Your task to perform on an android device: turn on priority inbox in the gmail app Image 0: 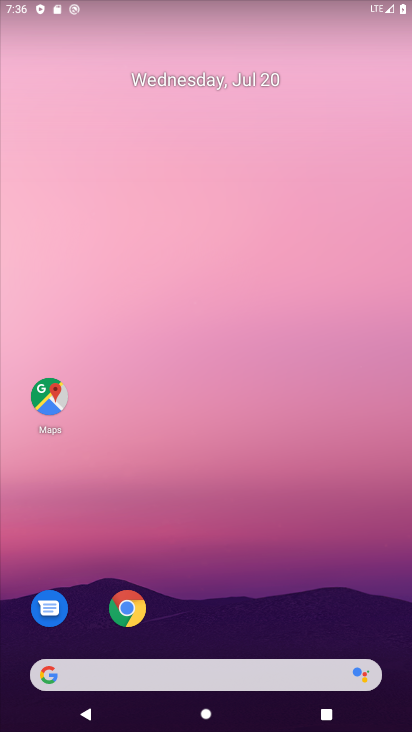
Step 0: drag from (344, 612) to (201, 104)
Your task to perform on an android device: turn on priority inbox in the gmail app Image 1: 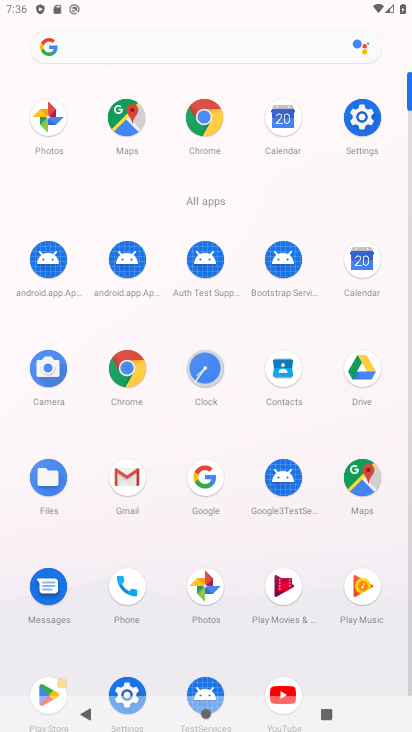
Step 1: click (135, 475)
Your task to perform on an android device: turn on priority inbox in the gmail app Image 2: 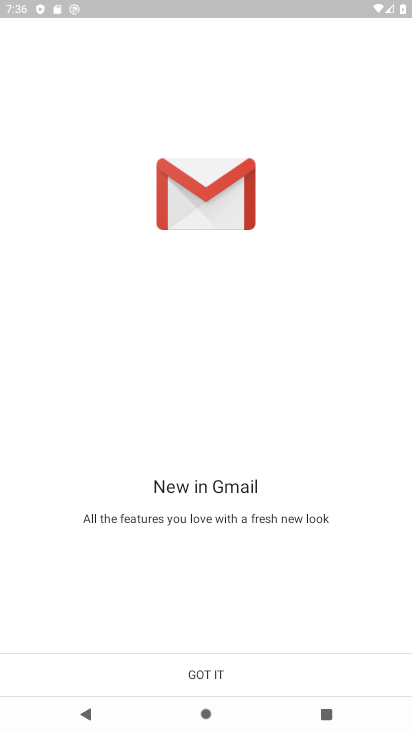
Step 2: click (237, 695)
Your task to perform on an android device: turn on priority inbox in the gmail app Image 3: 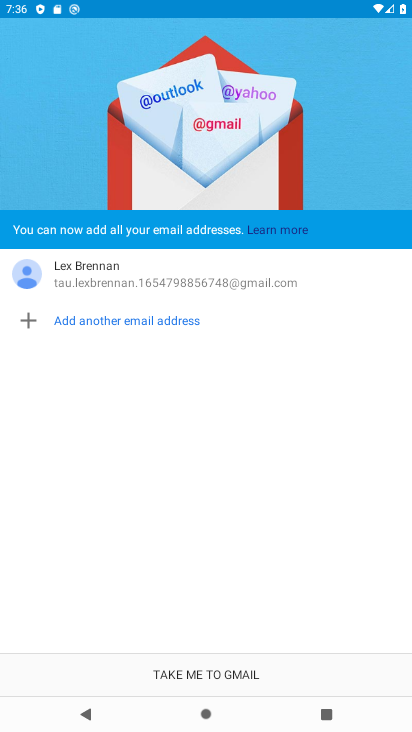
Step 3: click (237, 690)
Your task to perform on an android device: turn on priority inbox in the gmail app Image 4: 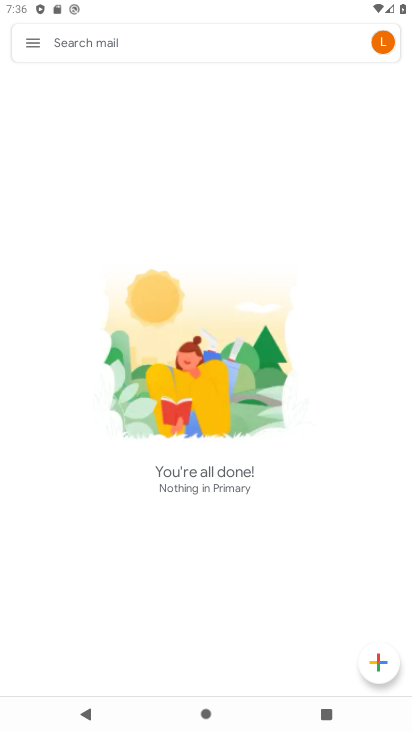
Step 4: click (37, 40)
Your task to perform on an android device: turn on priority inbox in the gmail app Image 5: 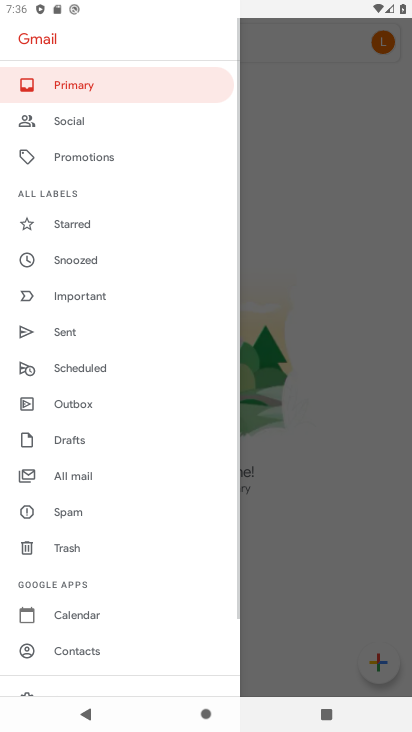
Step 5: drag from (121, 646) to (126, 279)
Your task to perform on an android device: turn on priority inbox in the gmail app Image 6: 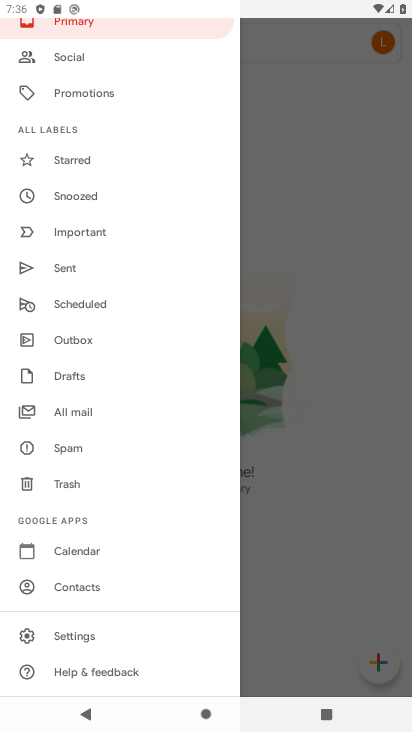
Step 6: click (103, 639)
Your task to perform on an android device: turn on priority inbox in the gmail app Image 7: 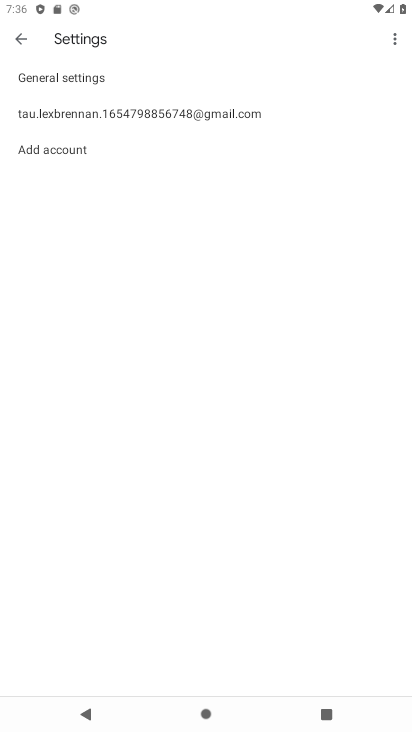
Step 7: click (187, 122)
Your task to perform on an android device: turn on priority inbox in the gmail app Image 8: 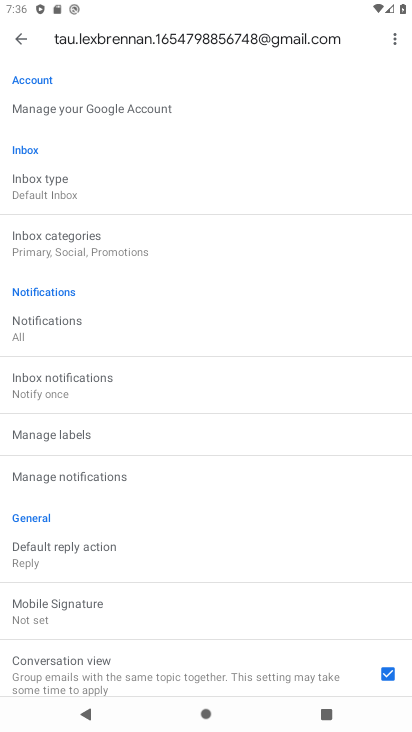
Step 8: click (76, 195)
Your task to perform on an android device: turn on priority inbox in the gmail app Image 9: 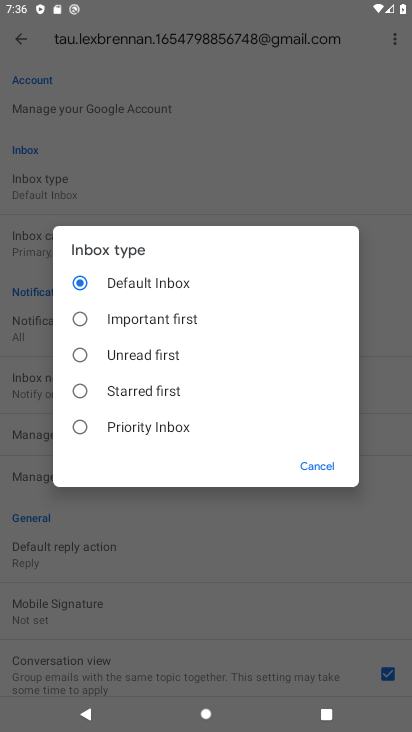
Step 9: task complete